Your task to perform on an android device: toggle improve location accuracy Image 0: 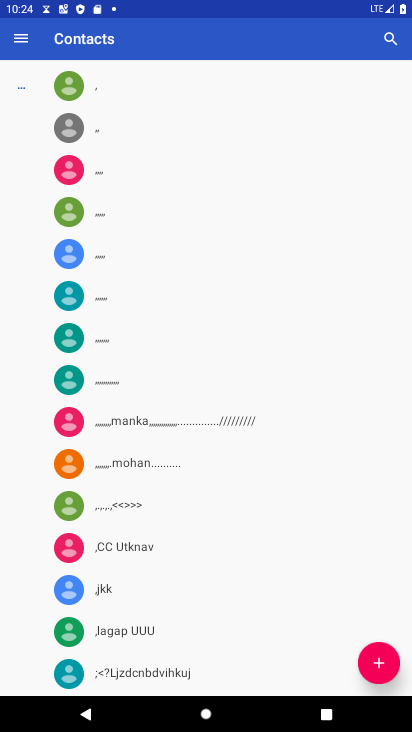
Step 0: press home button
Your task to perform on an android device: toggle improve location accuracy Image 1: 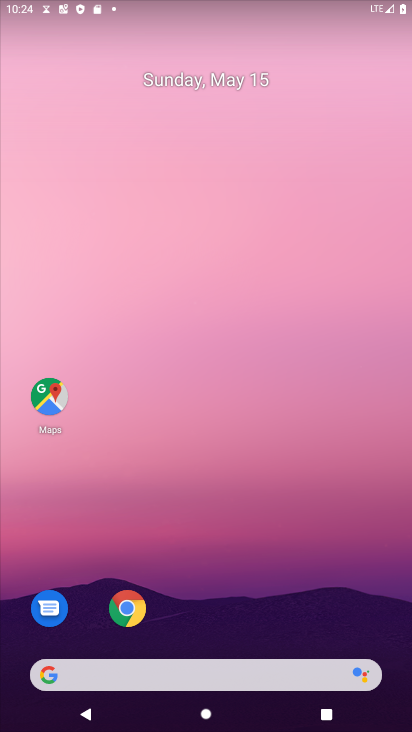
Step 1: drag from (333, 543) to (22, 238)
Your task to perform on an android device: toggle improve location accuracy Image 2: 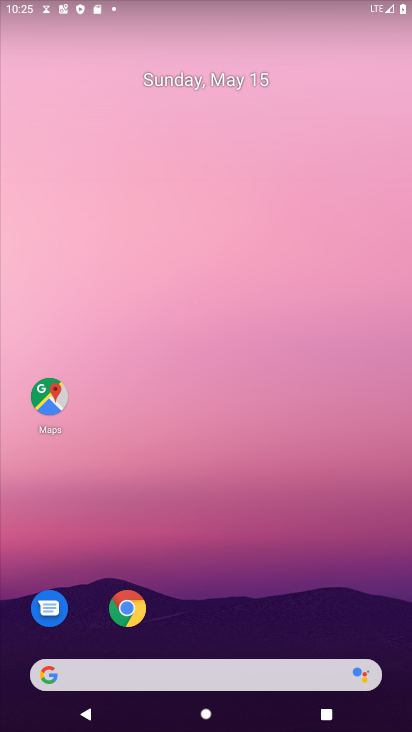
Step 2: click (308, 85)
Your task to perform on an android device: toggle improve location accuracy Image 3: 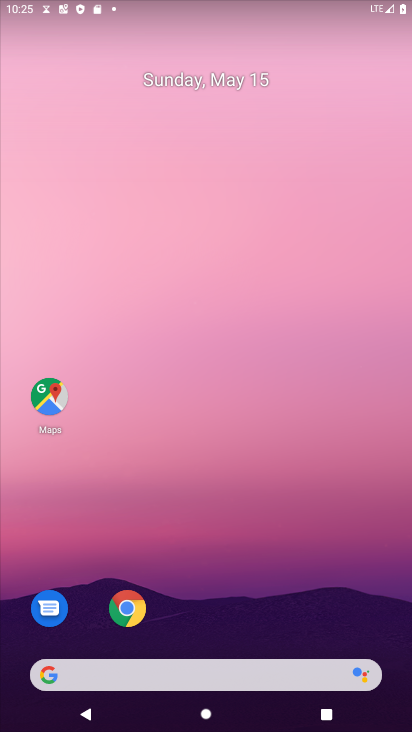
Step 3: drag from (260, 602) to (323, 9)
Your task to perform on an android device: toggle improve location accuracy Image 4: 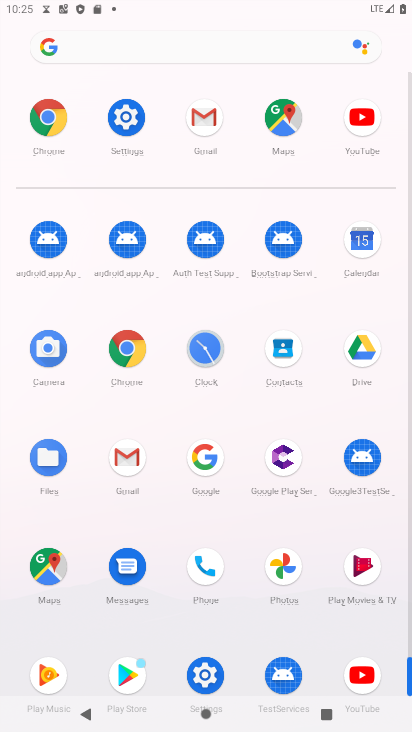
Step 4: click (106, 129)
Your task to perform on an android device: toggle improve location accuracy Image 5: 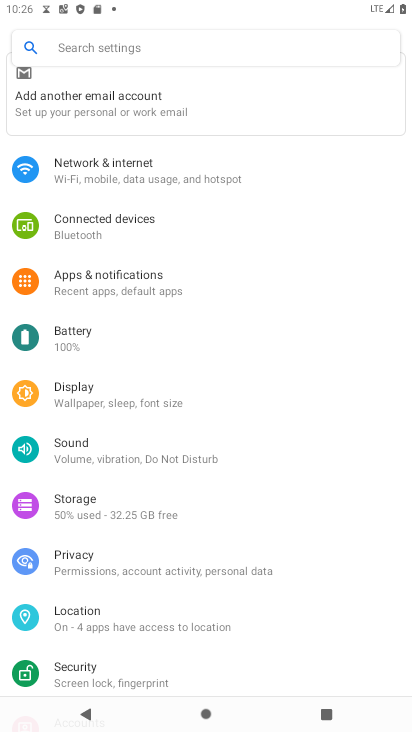
Step 5: drag from (175, 605) to (237, 276)
Your task to perform on an android device: toggle improve location accuracy Image 6: 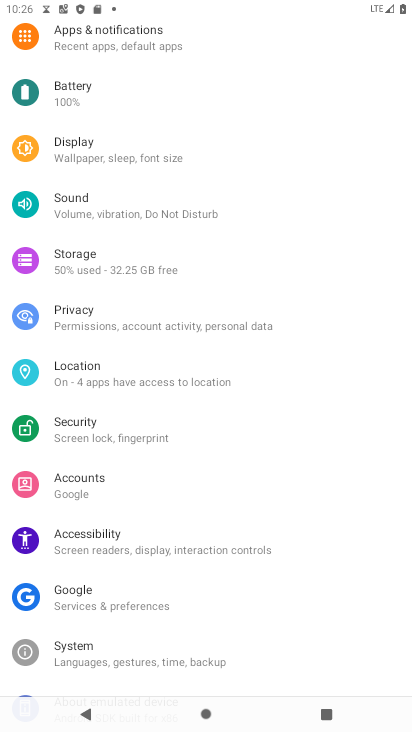
Step 6: click (125, 364)
Your task to perform on an android device: toggle improve location accuracy Image 7: 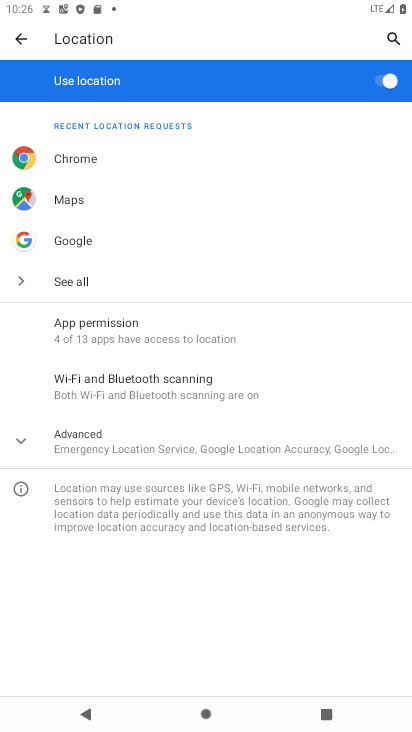
Step 7: click (97, 458)
Your task to perform on an android device: toggle improve location accuracy Image 8: 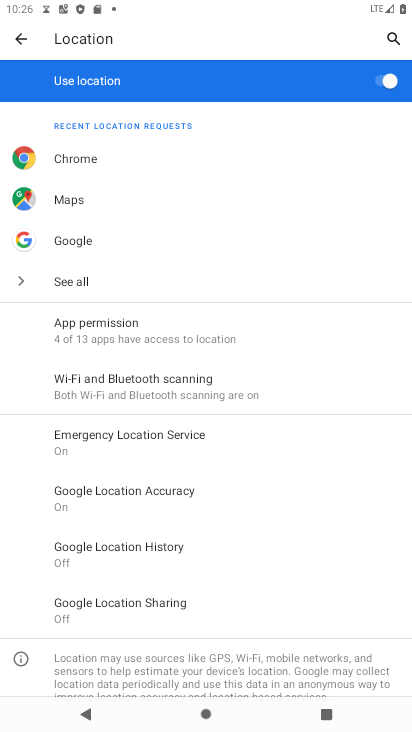
Step 8: drag from (248, 625) to (229, 367)
Your task to perform on an android device: toggle improve location accuracy Image 9: 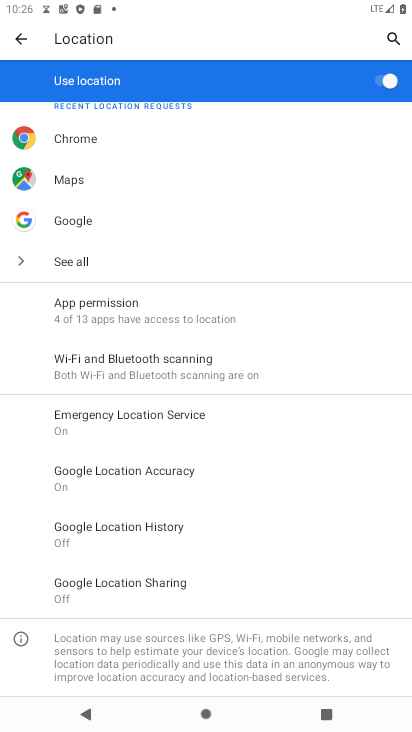
Step 9: click (149, 475)
Your task to perform on an android device: toggle improve location accuracy Image 10: 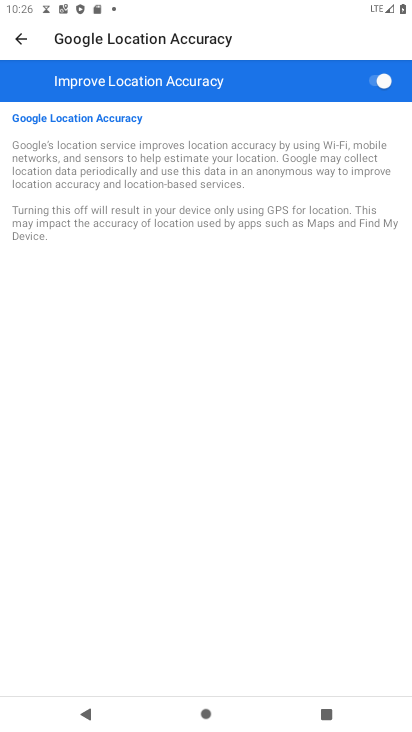
Step 10: click (377, 87)
Your task to perform on an android device: toggle improve location accuracy Image 11: 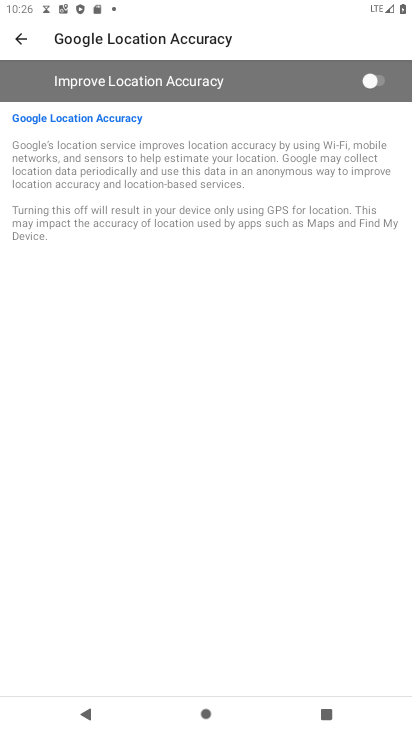
Step 11: task complete